Your task to perform on an android device: Do I have any events this weekend? Image 0: 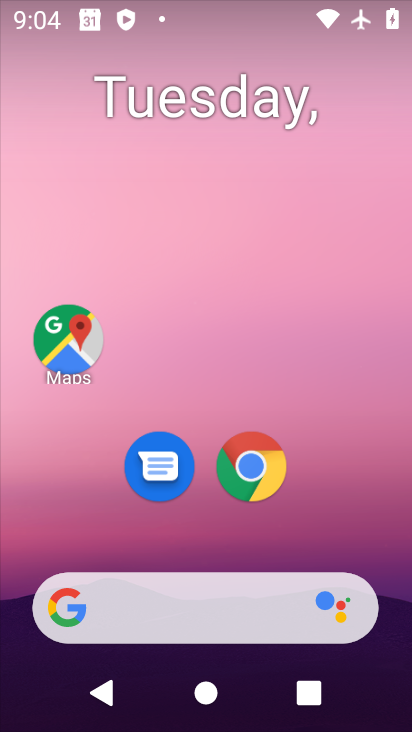
Step 0: drag from (338, 491) to (323, 155)
Your task to perform on an android device: Do I have any events this weekend? Image 1: 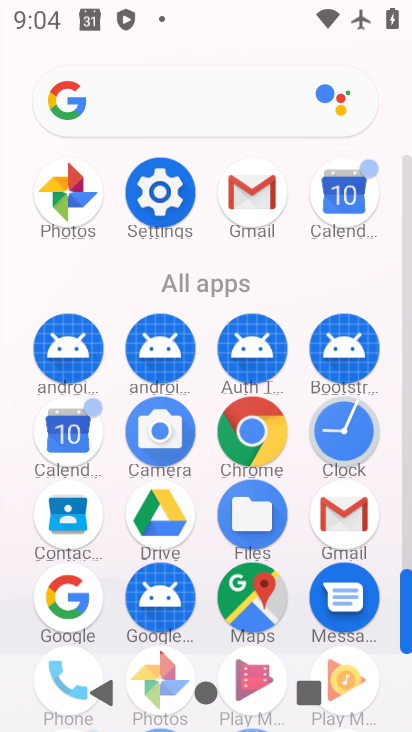
Step 1: click (60, 434)
Your task to perform on an android device: Do I have any events this weekend? Image 2: 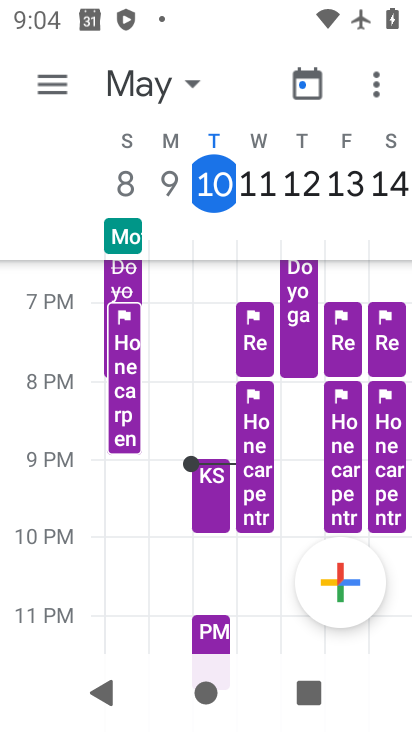
Step 2: task complete